Your task to perform on an android device: turn off location Image 0: 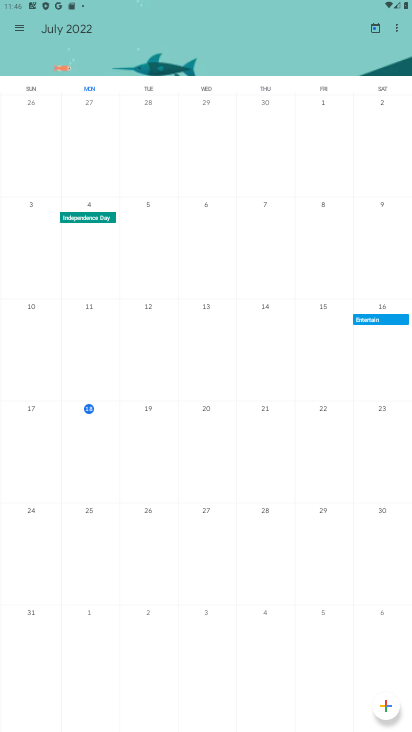
Step 0: press home button
Your task to perform on an android device: turn off location Image 1: 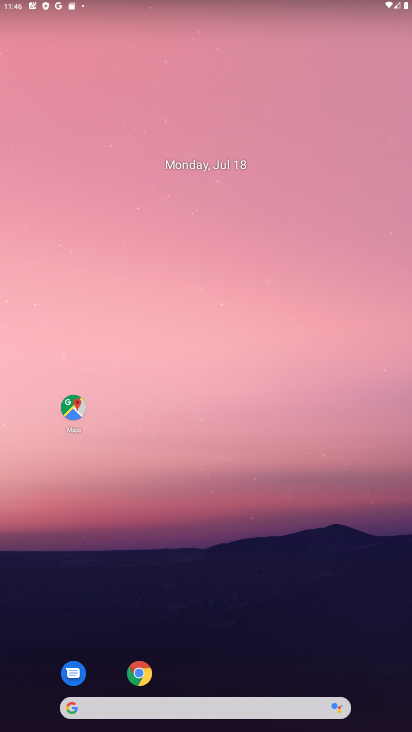
Step 1: drag from (223, 652) to (317, 50)
Your task to perform on an android device: turn off location Image 2: 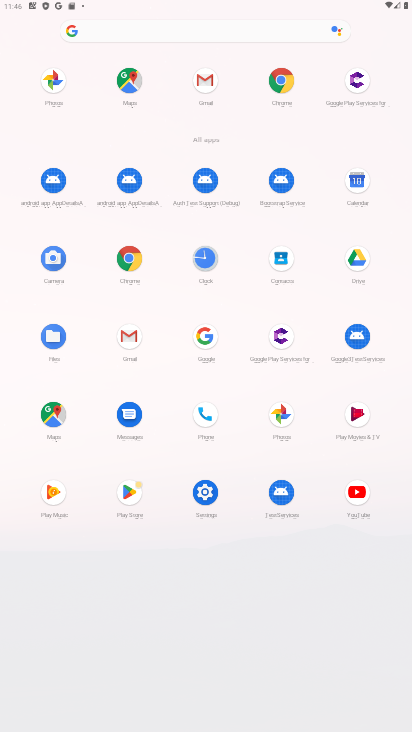
Step 2: click (197, 494)
Your task to perform on an android device: turn off location Image 3: 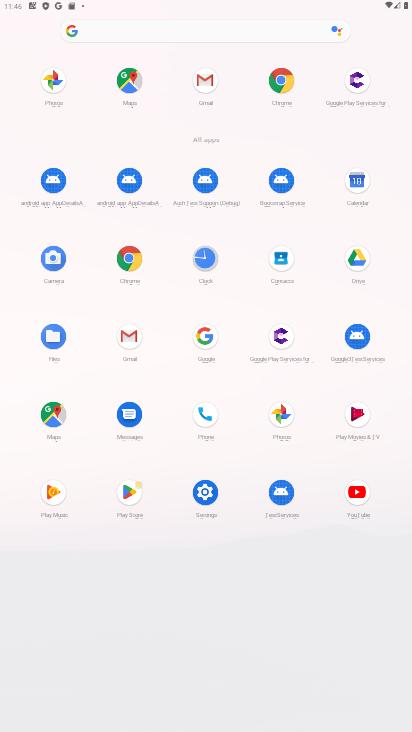
Step 3: click (197, 494)
Your task to perform on an android device: turn off location Image 4: 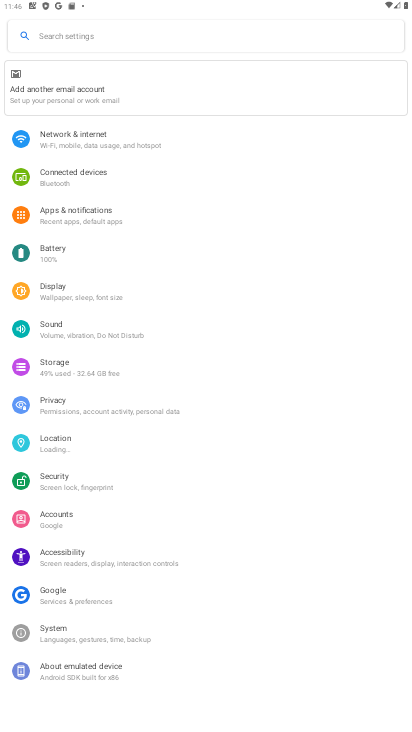
Step 4: click (59, 448)
Your task to perform on an android device: turn off location Image 5: 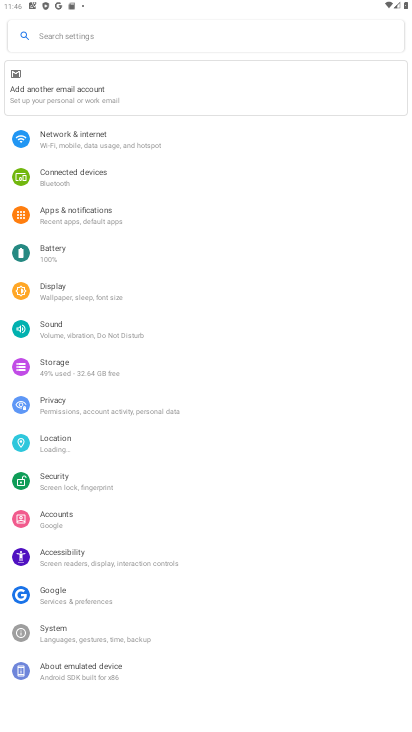
Step 5: click (59, 448)
Your task to perform on an android device: turn off location Image 6: 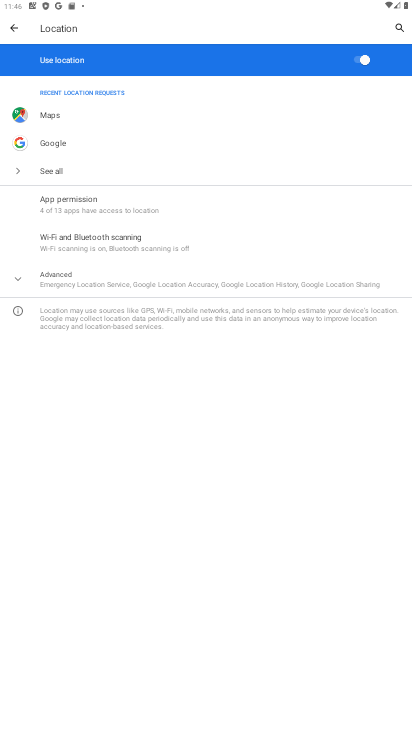
Step 6: click (364, 56)
Your task to perform on an android device: turn off location Image 7: 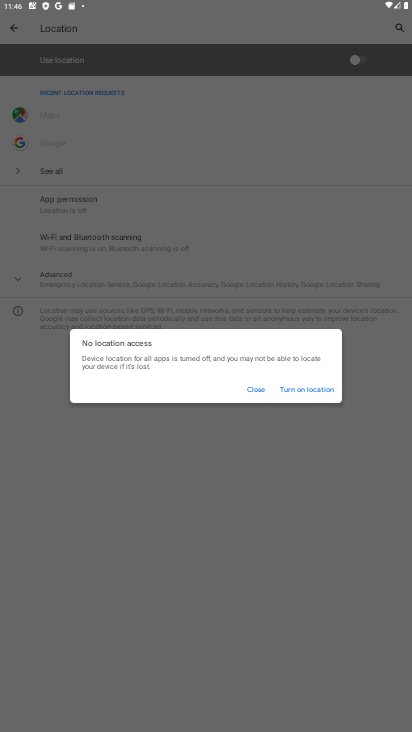
Step 7: task complete